Your task to perform on an android device: create a new album in the google photos Image 0: 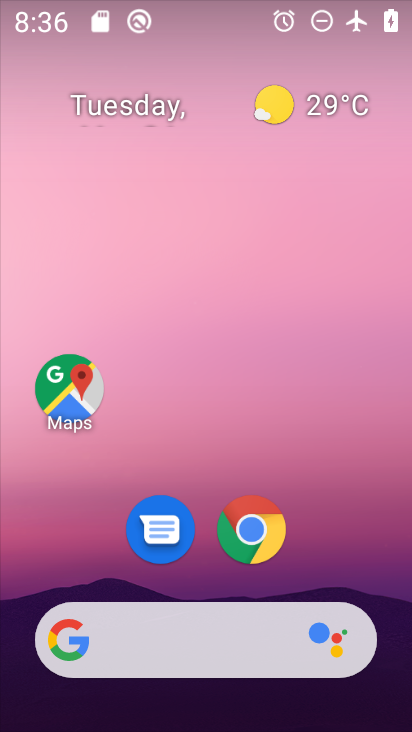
Step 0: drag from (401, 634) to (406, 594)
Your task to perform on an android device: create a new album in the google photos Image 1: 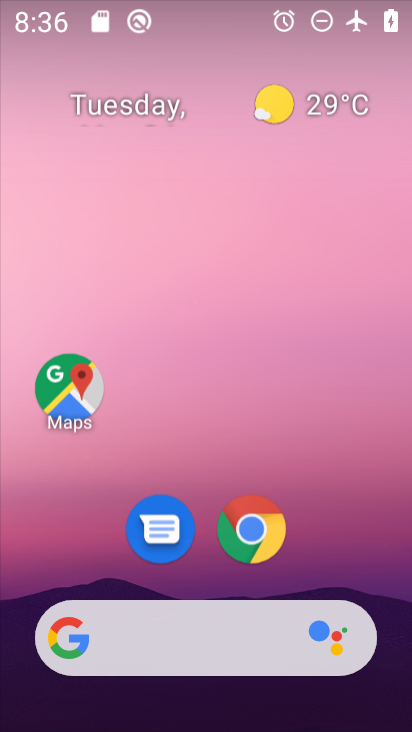
Step 1: click (240, 597)
Your task to perform on an android device: create a new album in the google photos Image 2: 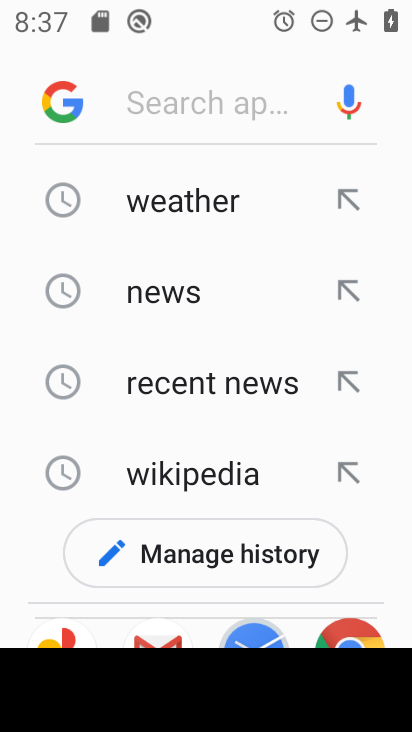
Step 2: press home button
Your task to perform on an android device: create a new album in the google photos Image 3: 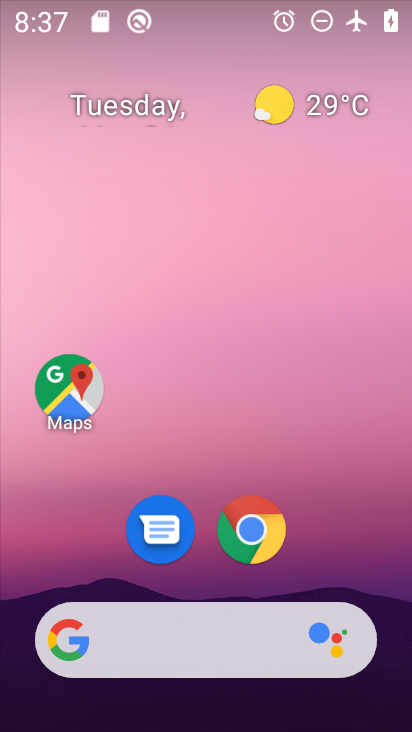
Step 3: drag from (386, 656) to (220, 0)
Your task to perform on an android device: create a new album in the google photos Image 4: 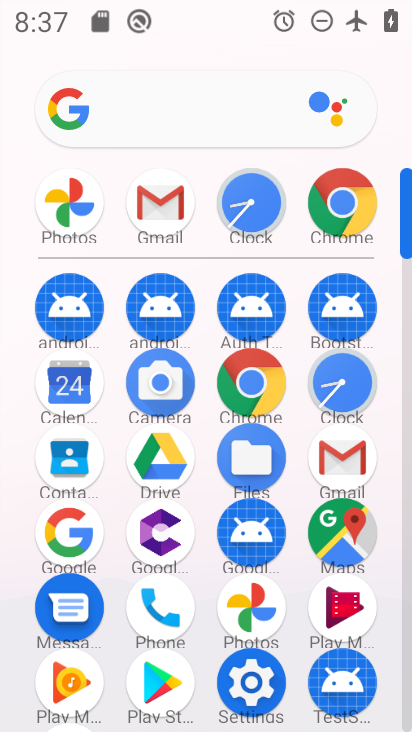
Step 4: click (251, 625)
Your task to perform on an android device: create a new album in the google photos Image 5: 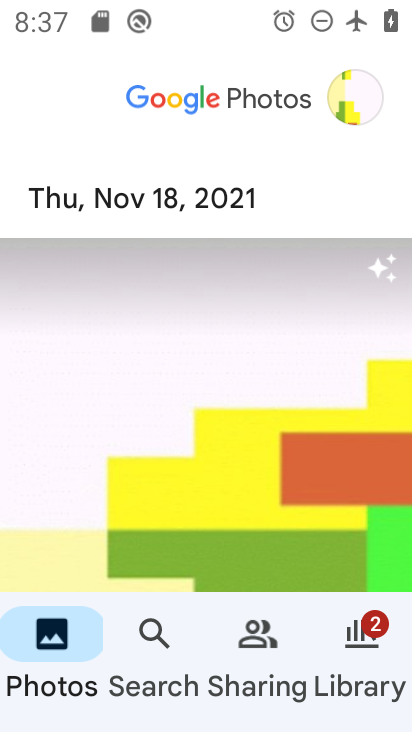
Step 5: press back button
Your task to perform on an android device: create a new album in the google photos Image 6: 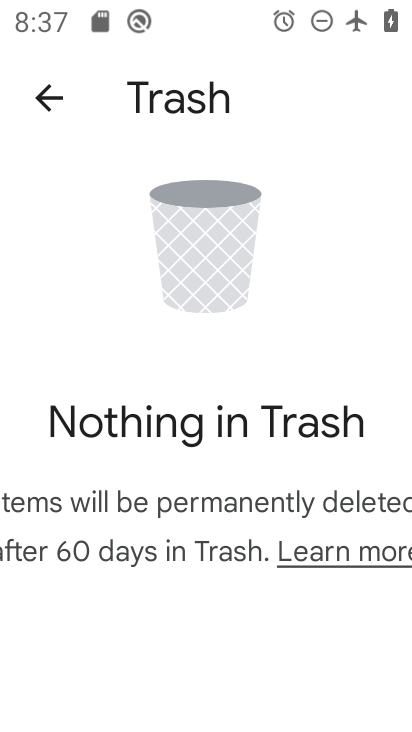
Step 6: press back button
Your task to perform on an android device: create a new album in the google photos Image 7: 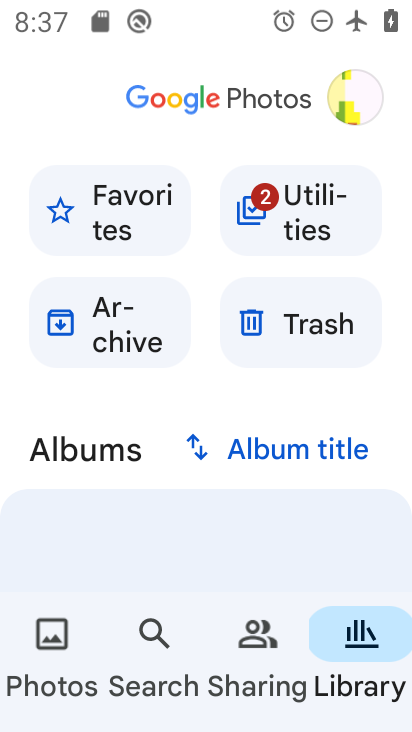
Step 7: click (43, 640)
Your task to perform on an android device: create a new album in the google photos Image 8: 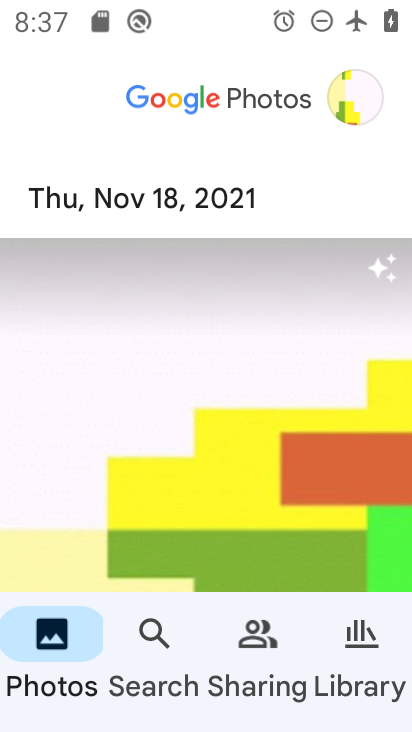
Step 8: press back button
Your task to perform on an android device: create a new album in the google photos Image 9: 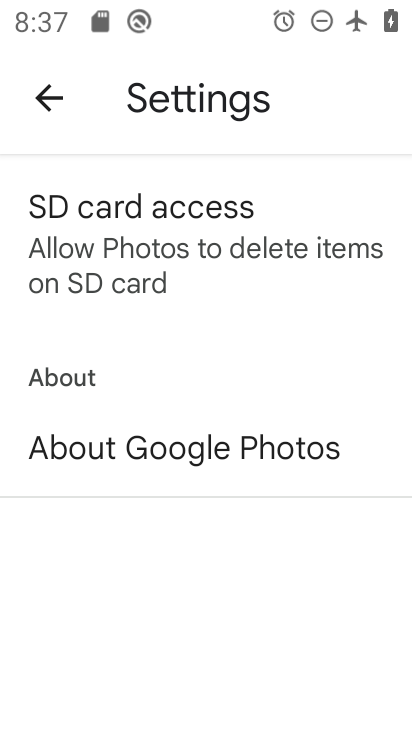
Step 9: press back button
Your task to perform on an android device: create a new album in the google photos Image 10: 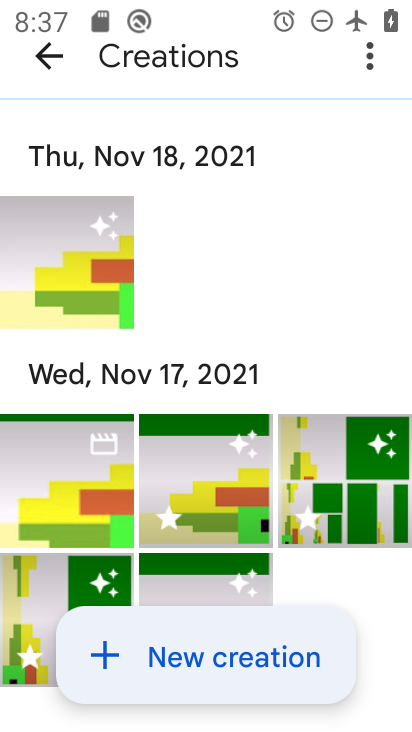
Step 10: click (82, 284)
Your task to perform on an android device: create a new album in the google photos Image 11: 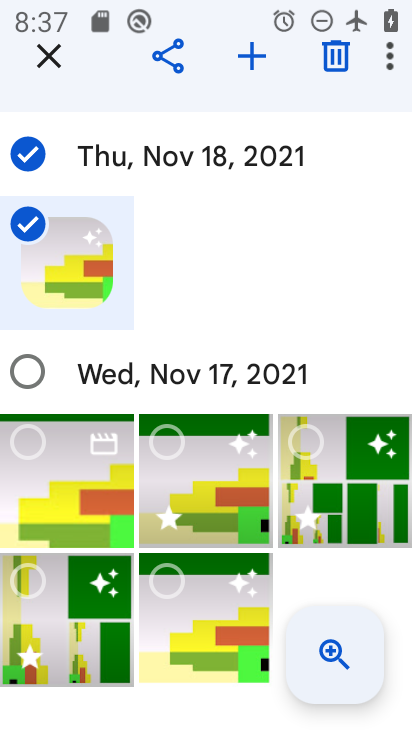
Step 11: click (249, 53)
Your task to perform on an android device: create a new album in the google photos Image 12: 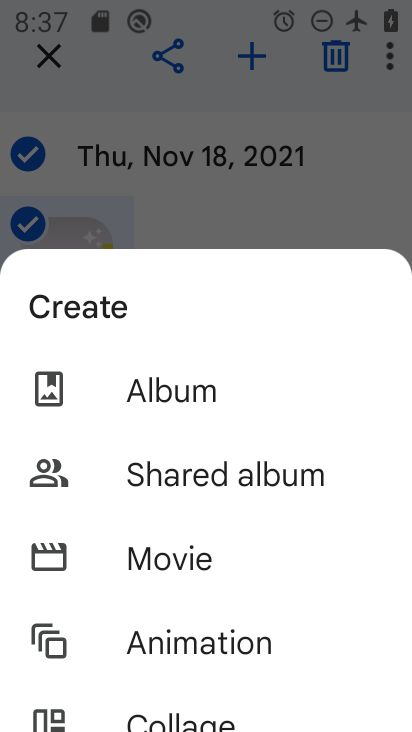
Step 12: click (178, 412)
Your task to perform on an android device: create a new album in the google photos Image 13: 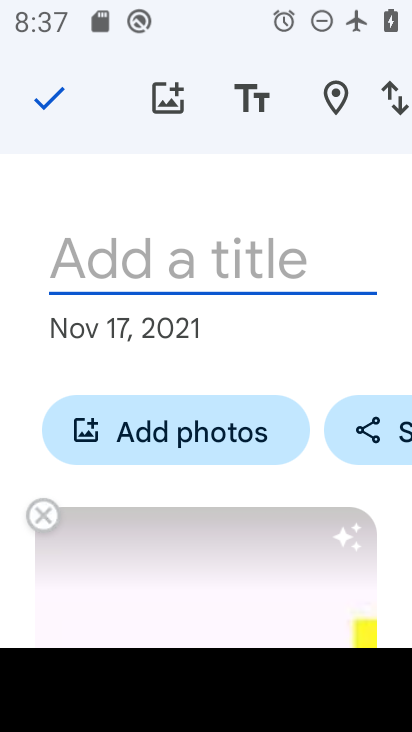
Step 13: type "KN"
Your task to perform on an android device: create a new album in the google photos Image 14: 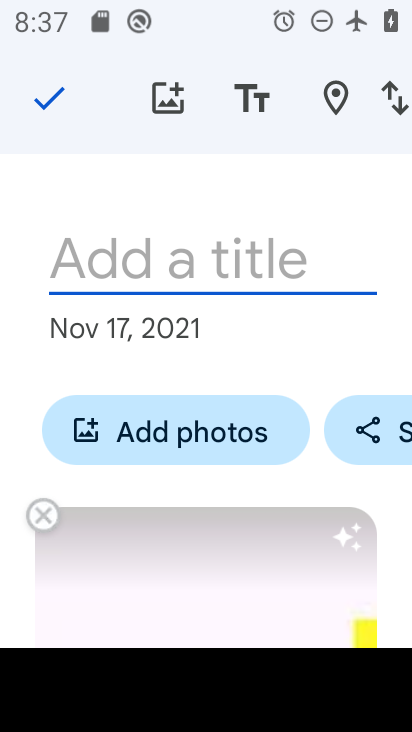
Step 14: click (67, 121)
Your task to perform on an android device: create a new album in the google photos Image 15: 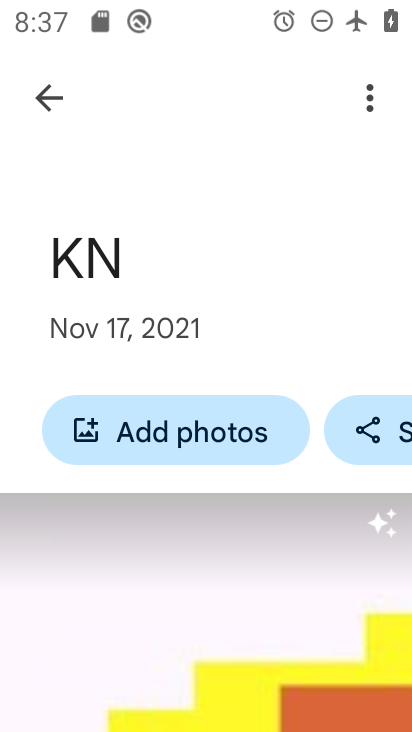
Step 15: task complete